Your task to perform on an android device: toggle notification dots Image 0: 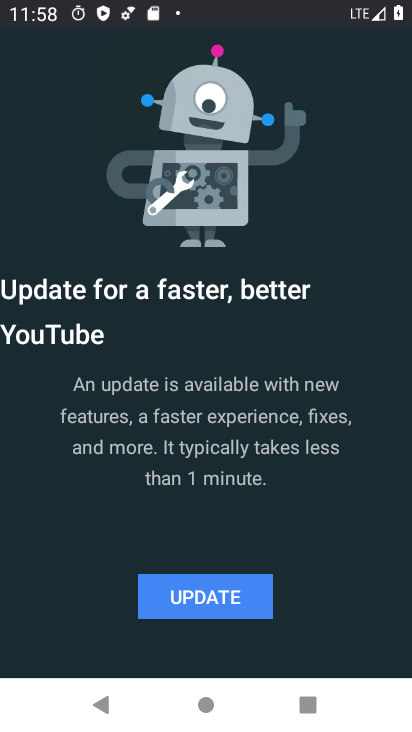
Step 0: press home button
Your task to perform on an android device: toggle notification dots Image 1: 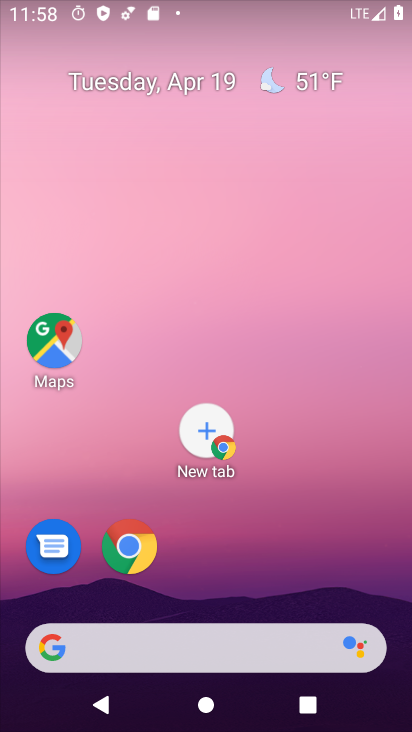
Step 1: drag from (279, 308) to (268, 126)
Your task to perform on an android device: toggle notification dots Image 2: 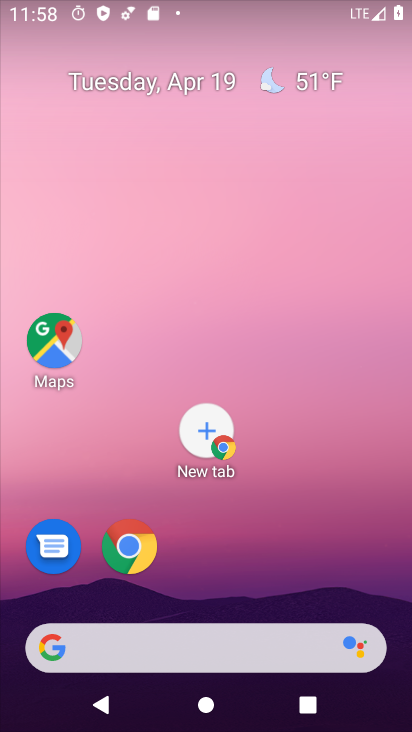
Step 2: drag from (280, 607) to (174, 15)
Your task to perform on an android device: toggle notification dots Image 3: 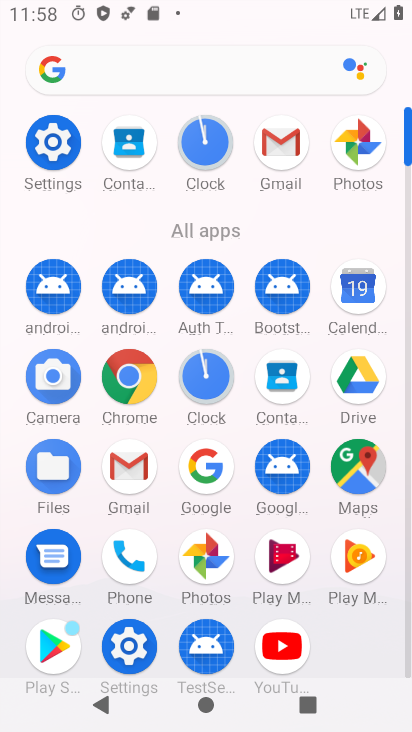
Step 3: click (61, 131)
Your task to perform on an android device: toggle notification dots Image 4: 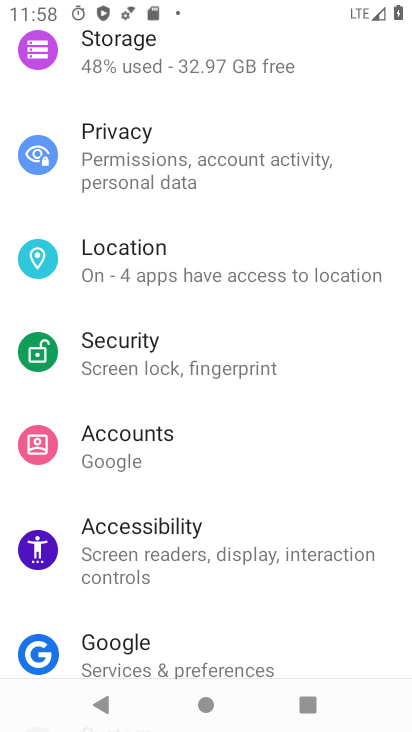
Step 4: drag from (350, 134) to (297, 626)
Your task to perform on an android device: toggle notification dots Image 5: 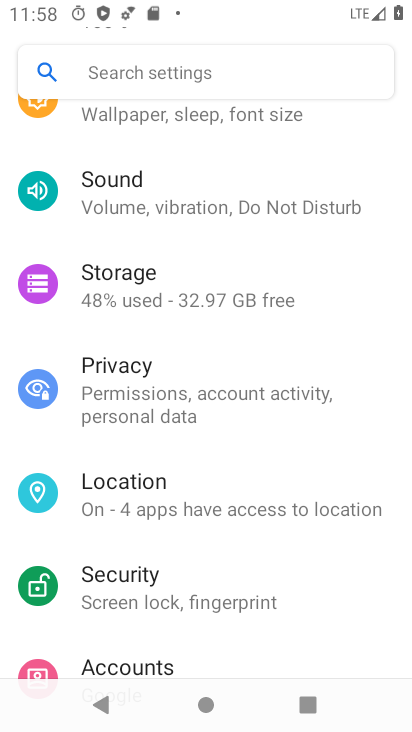
Step 5: drag from (250, 182) to (252, 608)
Your task to perform on an android device: toggle notification dots Image 6: 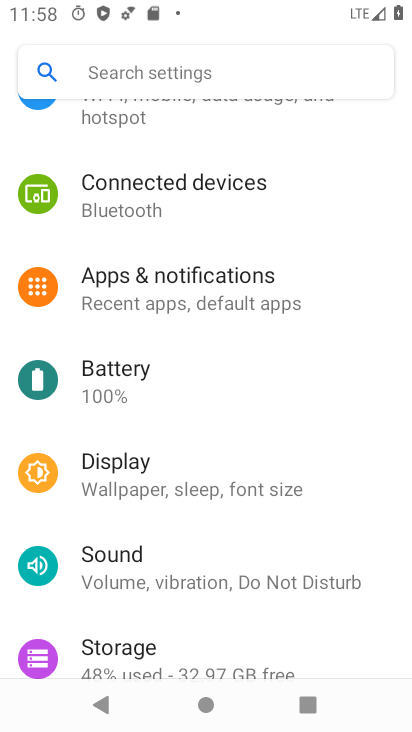
Step 6: click (171, 285)
Your task to perform on an android device: toggle notification dots Image 7: 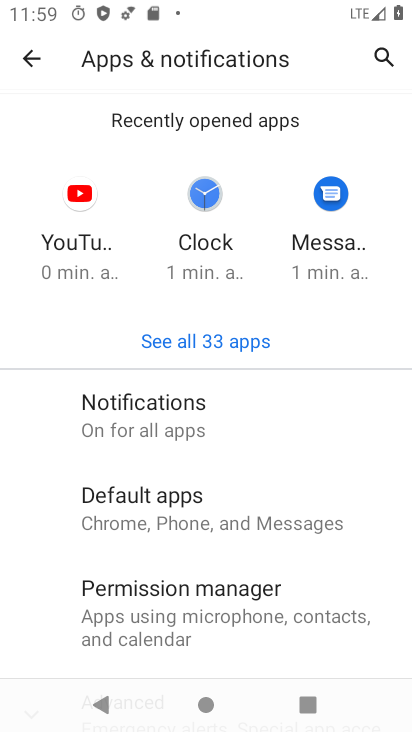
Step 7: click (241, 448)
Your task to perform on an android device: toggle notification dots Image 8: 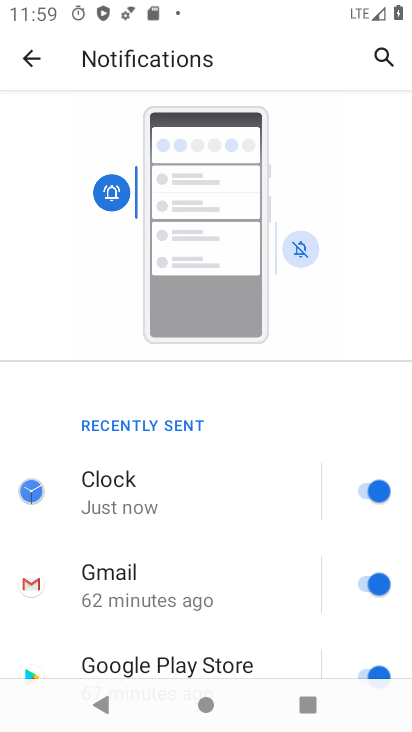
Step 8: drag from (241, 519) to (223, 77)
Your task to perform on an android device: toggle notification dots Image 9: 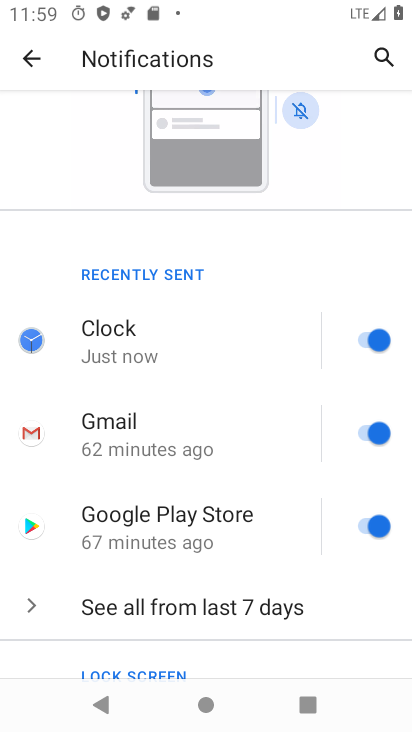
Step 9: drag from (143, 614) to (153, 125)
Your task to perform on an android device: toggle notification dots Image 10: 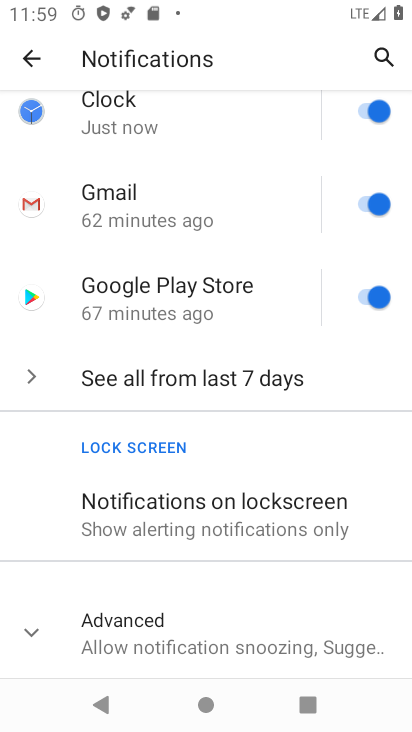
Step 10: drag from (174, 403) to (145, 81)
Your task to perform on an android device: toggle notification dots Image 11: 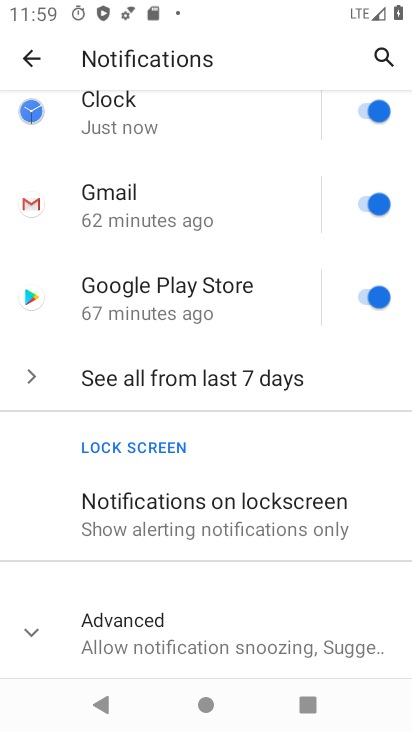
Step 11: click (168, 619)
Your task to perform on an android device: toggle notification dots Image 12: 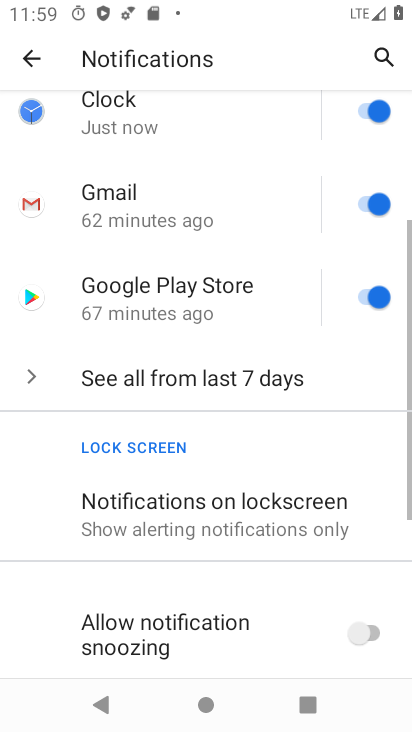
Step 12: drag from (168, 619) to (167, 108)
Your task to perform on an android device: toggle notification dots Image 13: 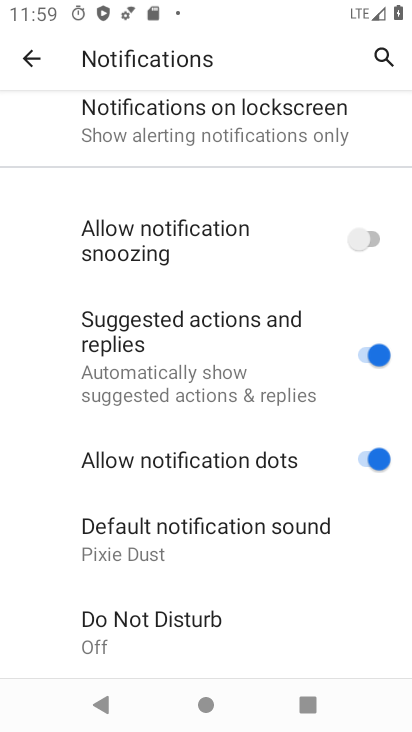
Step 13: click (375, 468)
Your task to perform on an android device: toggle notification dots Image 14: 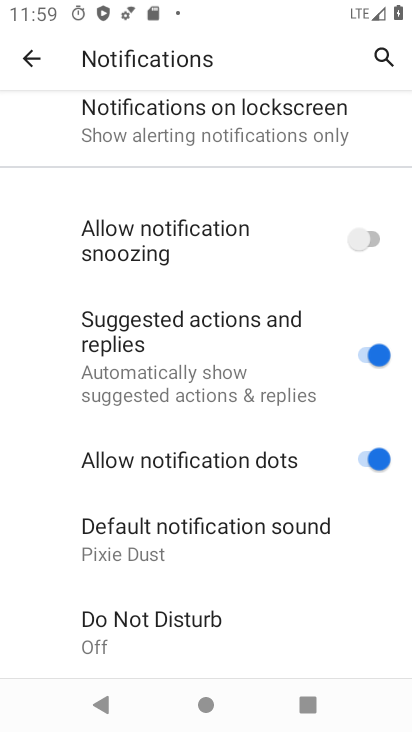
Step 14: click (375, 468)
Your task to perform on an android device: toggle notification dots Image 15: 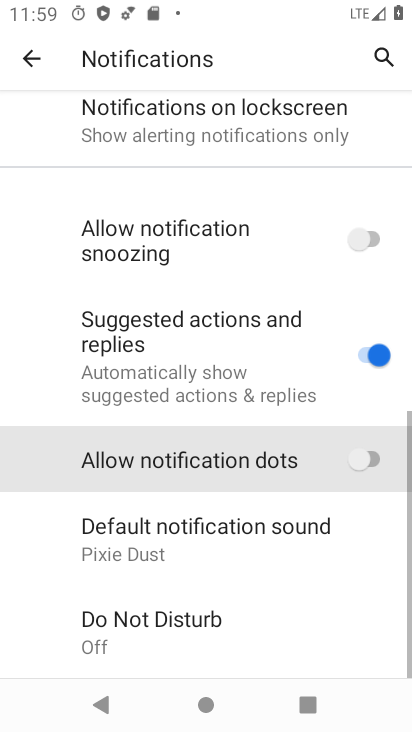
Step 15: click (375, 468)
Your task to perform on an android device: toggle notification dots Image 16: 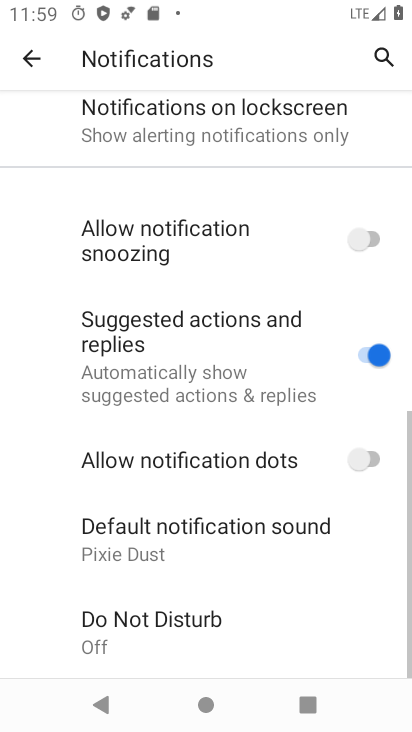
Step 16: task complete